Your task to perform on an android device: turn pop-ups off in chrome Image 0: 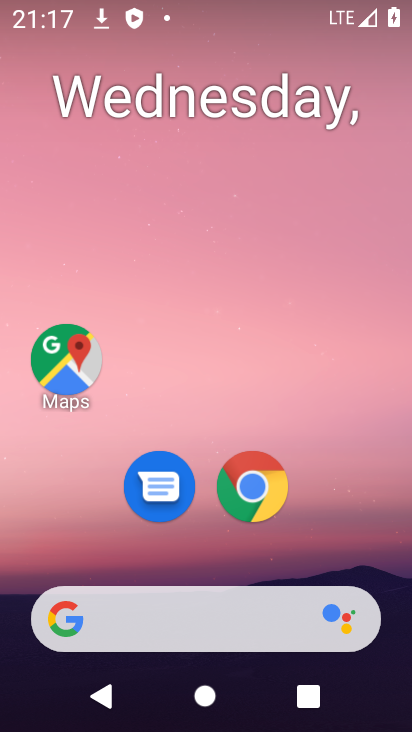
Step 0: click (257, 473)
Your task to perform on an android device: turn pop-ups off in chrome Image 1: 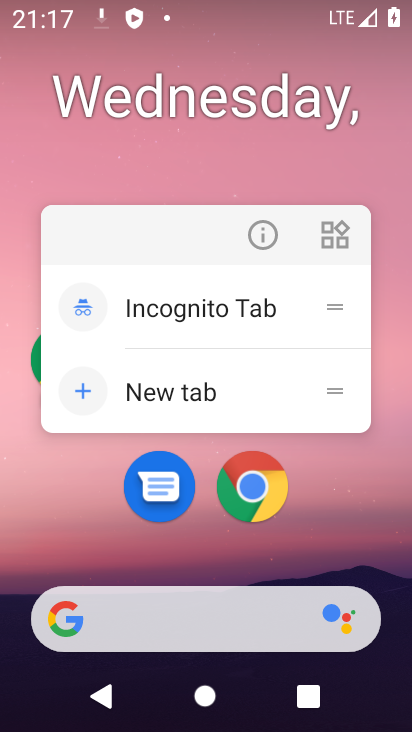
Step 1: click (257, 495)
Your task to perform on an android device: turn pop-ups off in chrome Image 2: 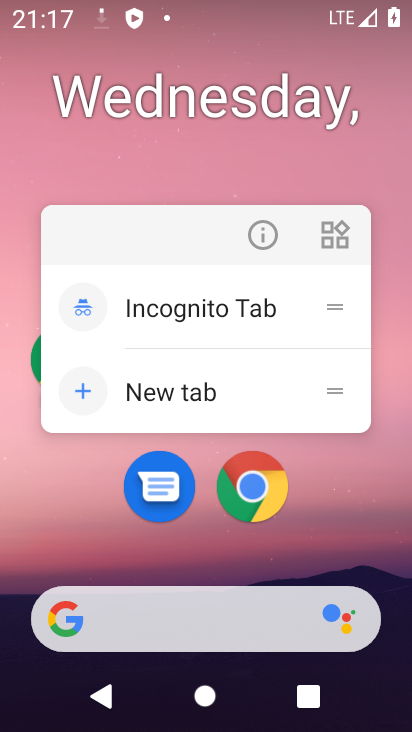
Step 2: click (248, 497)
Your task to perform on an android device: turn pop-ups off in chrome Image 3: 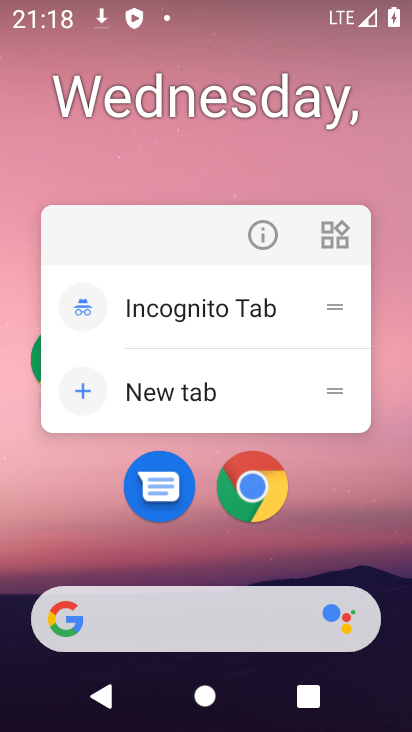
Step 3: click (253, 482)
Your task to perform on an android device: turn pop-ups off in chrome Image 4: 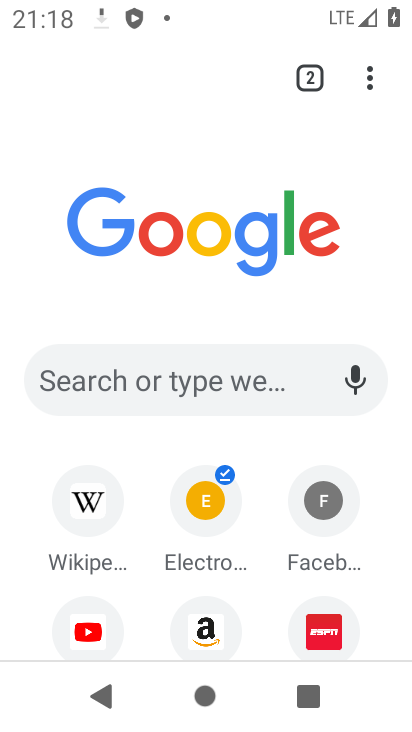
Step 4: drag from (362, 70) to (117, 539)
Your task to perform on an android device: turn pop-ups off in chrome Image 5: 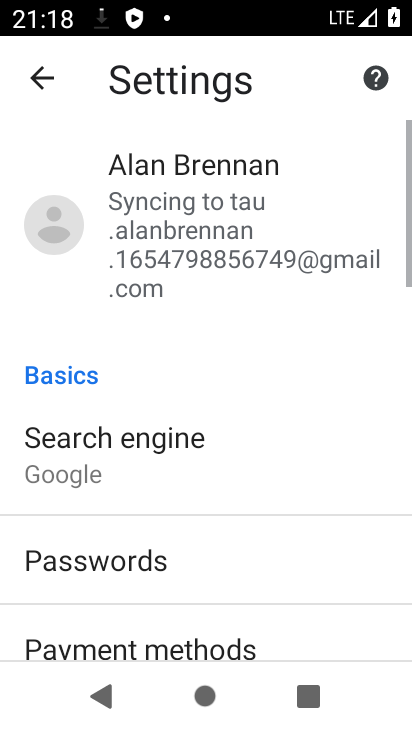
Step 5: drag from (146, 592) to (239, 142)
Your task to perform on an android device: turn pop-ups off in chrome Image 6: 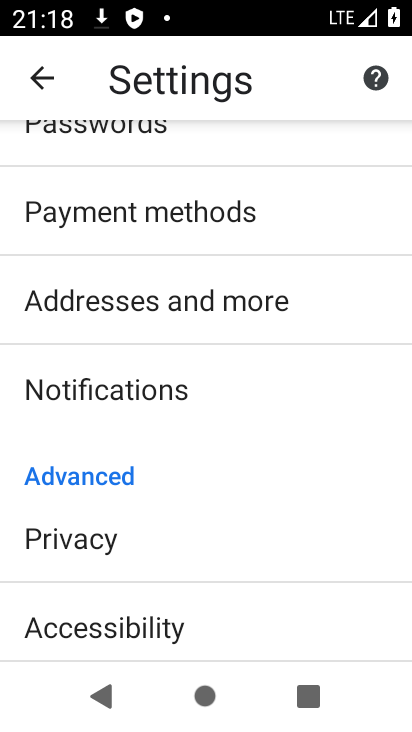
Step 6: drag from (126, 586) to (174, 254)
Your task to perform on an android device: turn pop-ups off in chrome Image 7: 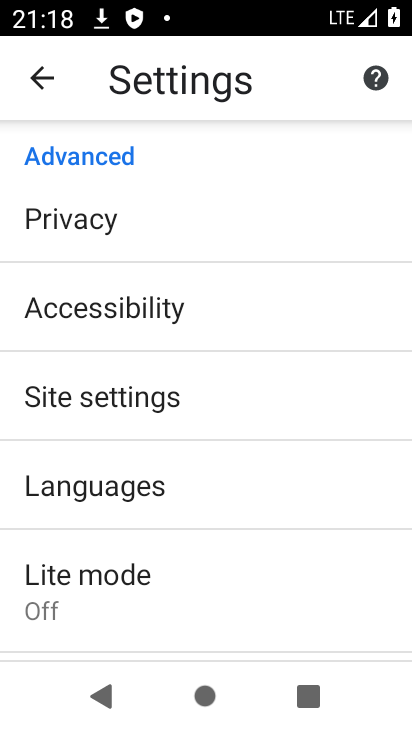
Step 7: click (143, 406)
Your task to perform on an android device: turn pop-ups off in chrome Image 8: 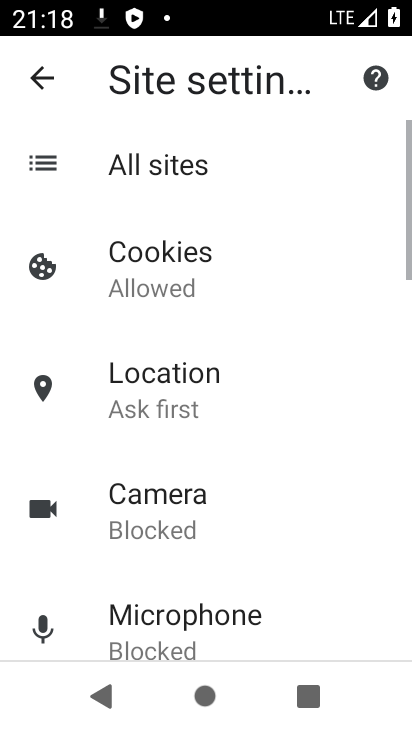
Step 8: drag from (150, 634) to (236, 62)
Your task to perform on an android device: turn pop-ups off in chrome Image 9: 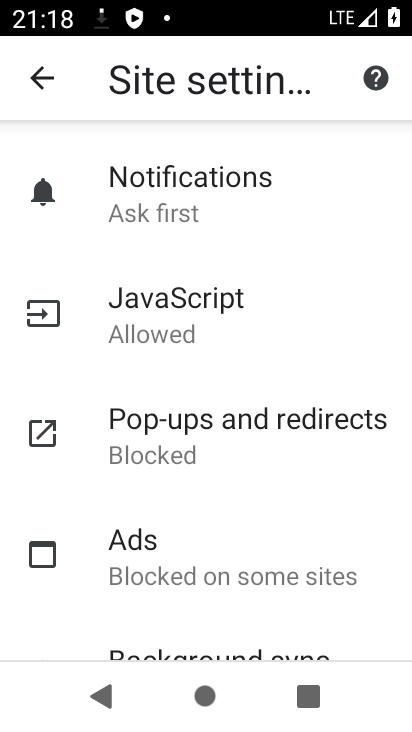
Step 9: click (180, 424)
Your task to perform on an android device: turn pop-ups off in chrome Image 10: 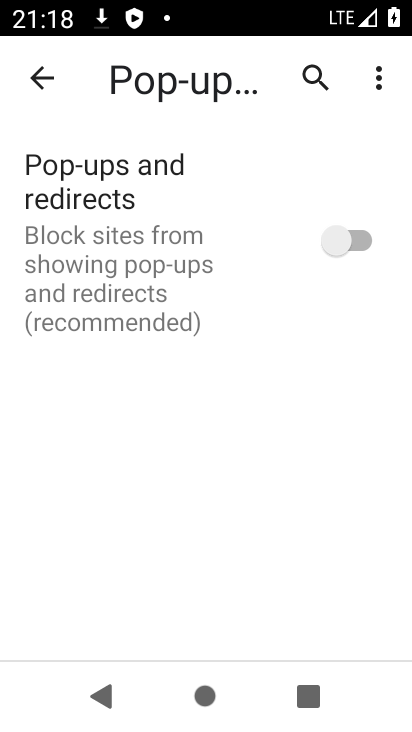
Step 10: task complete